Your task to perform on an android device: delete location history Image 0: 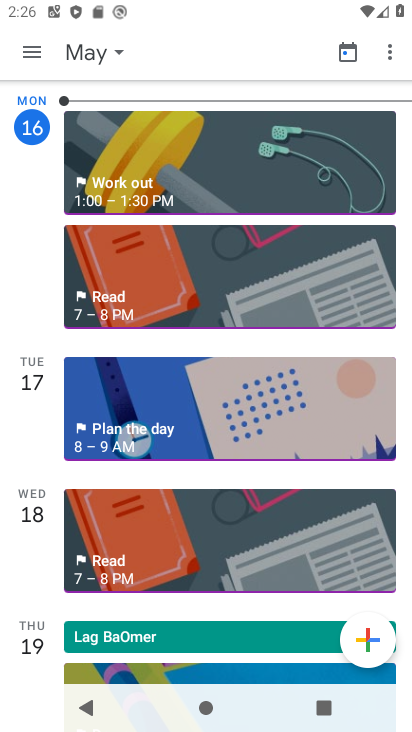
Step 0: press home button
Your task to perform on an android device: delete location history Image 1: 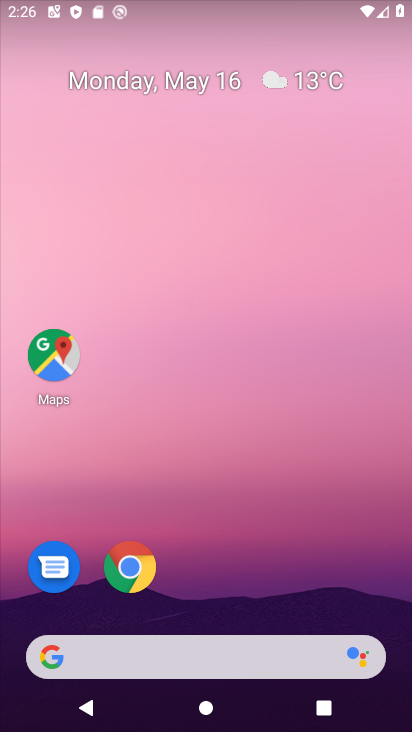
Step 1: drag from (248, 551) to (228, 118)
Your task to perform on an android device: delete location history Image 2: 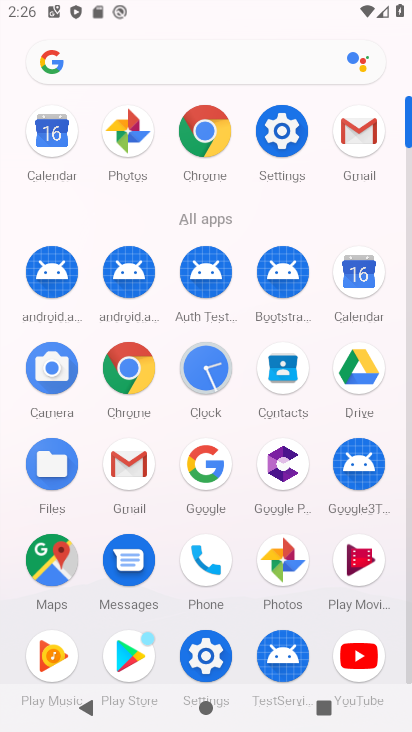
Step 2: click (47, 551)
Your task to perform on an android device: delete location history Image 3: 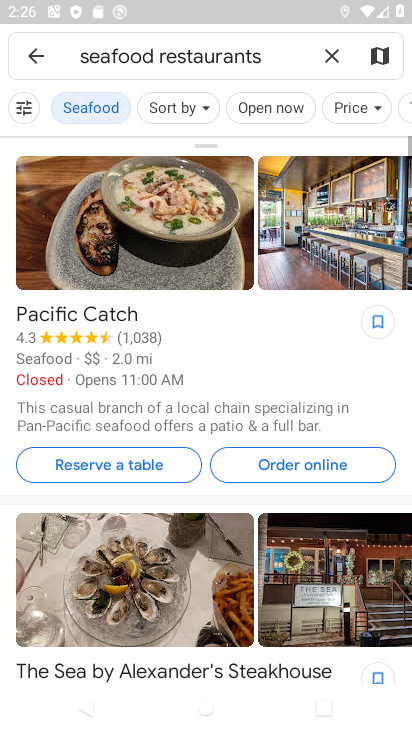
Step 3: click (332, 49)
Your task to perform on an android device: delete location history Image 4: 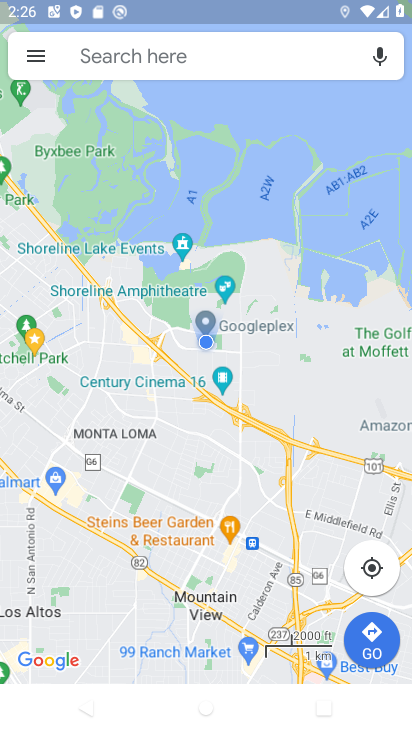
Step 4: click (25, 56)
Your task to perform on an android device: delete location history Image 5: 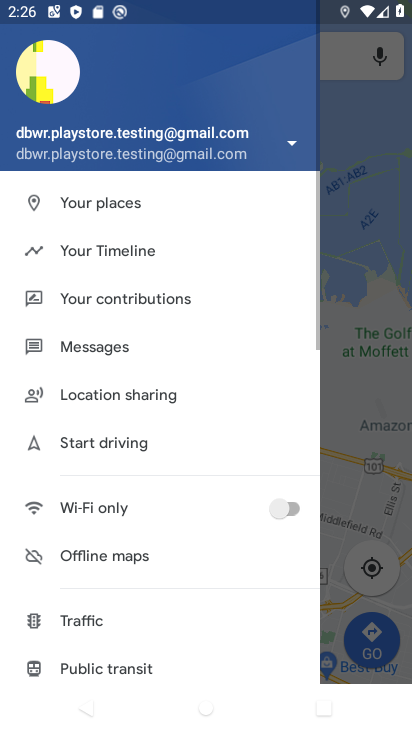
Step 5: drag from (192, 597) to (322, 58)
Your task to perform on an android device: delete location history Image 6: 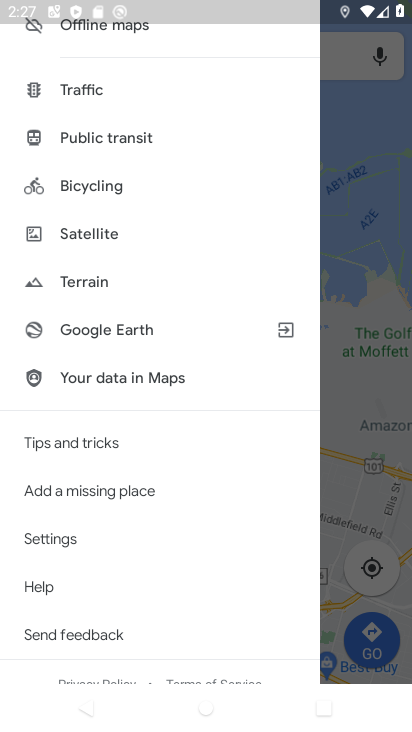
Step 6: click (61, 533)
Your task to perform on an android device: delete location history Image 7: 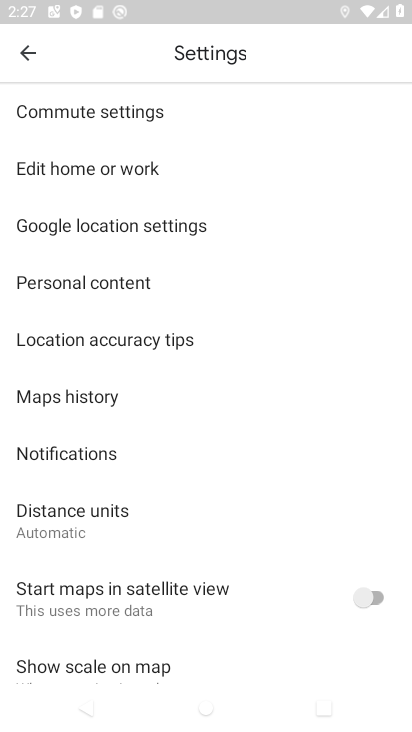
Step 7: click (96, 394)
Your task to perform on an android device: delete location history Image 8: 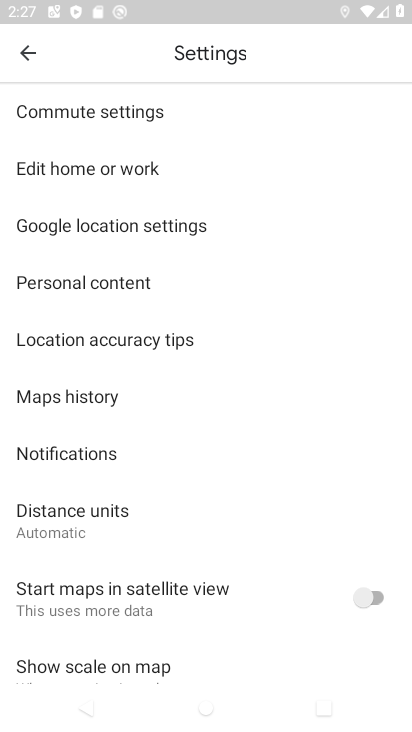
Step 8: click (108, 396)
Your task to perform on an android device: delete location history Image 9: 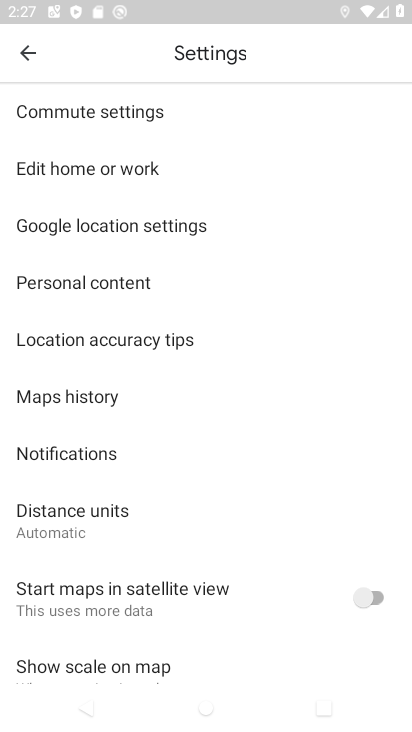
Step 9: task complete